Your task to perform on an android device: Show me recent news Image 0: 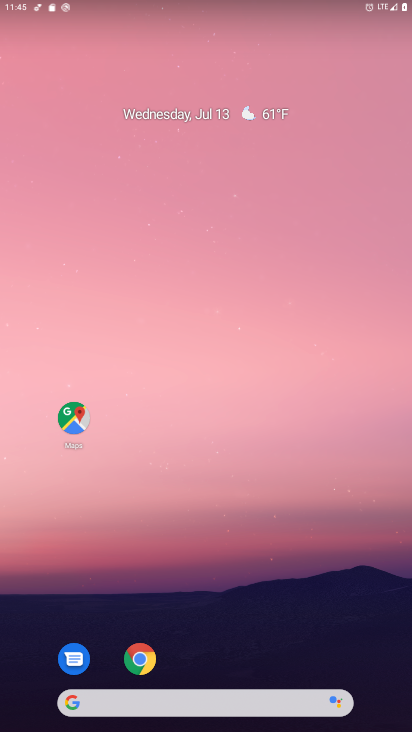
Step 0: press home button
Your task to perform on an android device: Show me recent news Image 1: 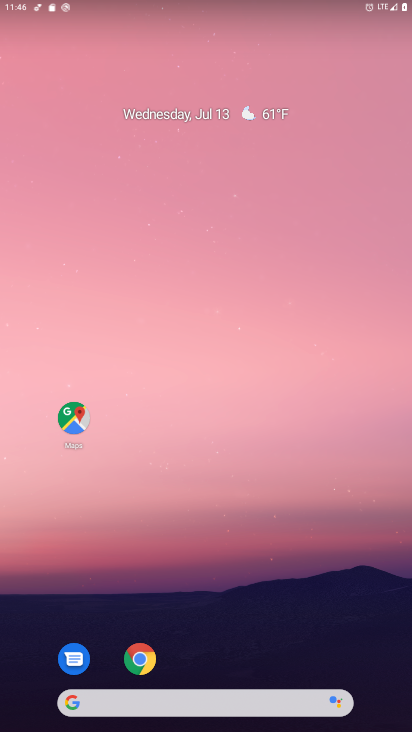
Step 1: task complete